Your task to perform on an android device: Search for the best rated headphones on Amazon Image 0: 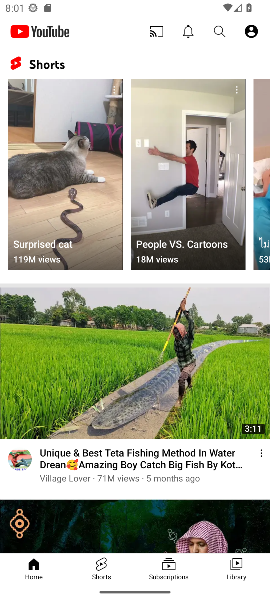
Step 0: press home button
Your task to perform on an android device: Search for the best rated headphones on Amazon Image 1: 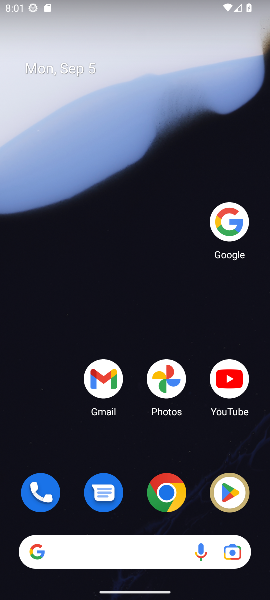
Step 1: click (227, 216)
Your task to perform on an android device: Search for the best rated headphones on Amazon Image 2: 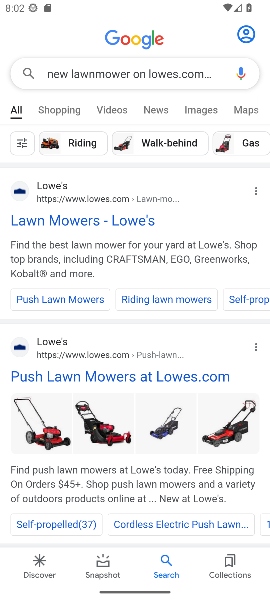
Step 2: click (205, 74)
Your task to perform on an android device: Search for the best rated headphones on Amazon Image 3: 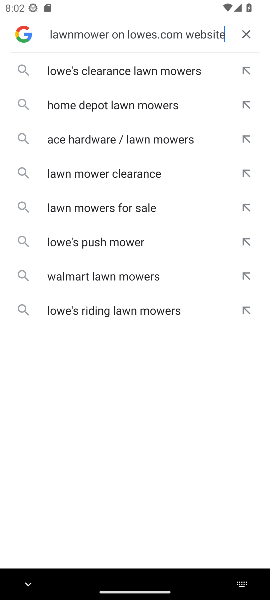
Step 3: click (250, 30)
Your task to perform on an android device: Search for the best rated headphones on Amazon Image 4: 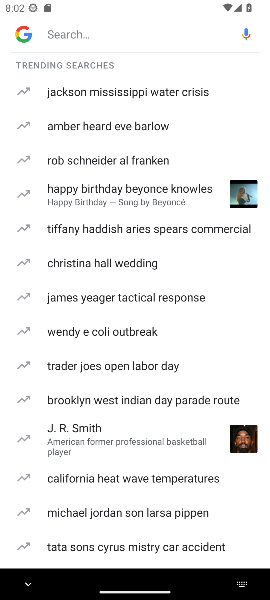
Step 4: click (93, 42)
Your task to perform on an android device: Search for the best rated headphones on Amazon Image 5: 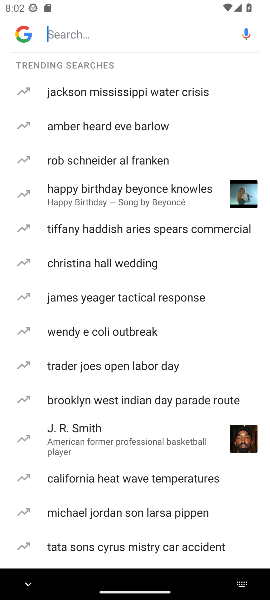
Step 5: click (93, 25)
Your task to perform on an android device: Search for the best rated headphones on Amazon Image 6: 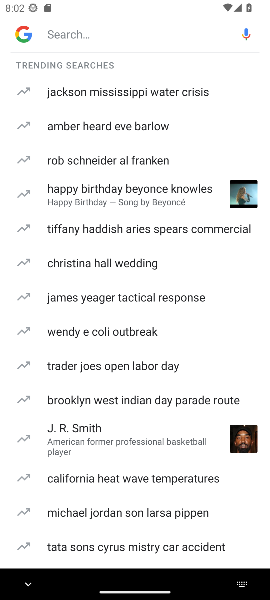
Step 6: type " the best rated headphones on Amazon "
Your task to perform on an android device: Search for the best rated headphones on Amazon Image 7: 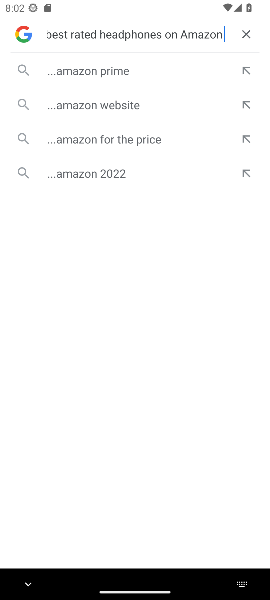
Step 7: click (86, 136)
Your task to perform on an android device: Search for the best rated headphones on Amazon Image 8: 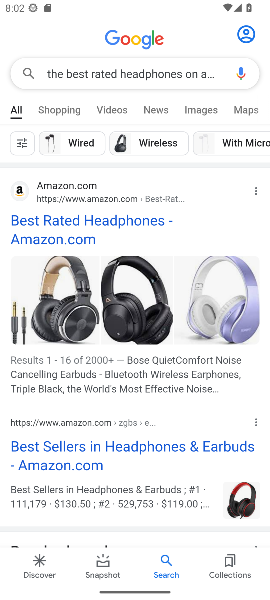
Step 8: click (33, 232)
Your task to perform on an android device: Search for the best rated headphones on Amazon Image 9: 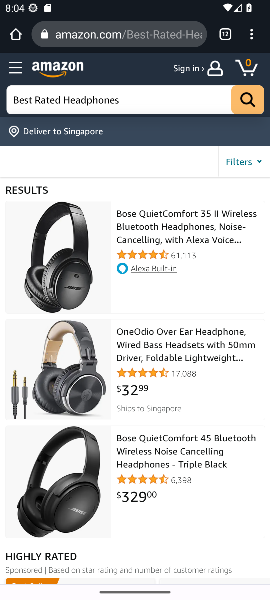
Step 9: click (196, 207)
Your task to perform on an android device: Search for the best rated headphones on Amazon Image 10: 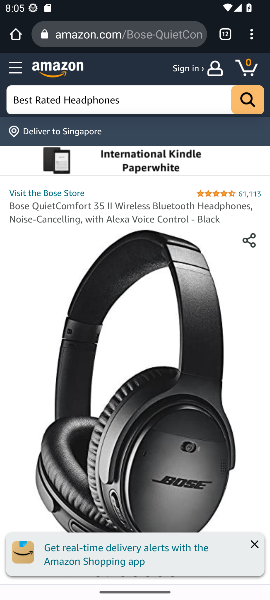
Step 10: task complete